Your task to perform on an android device: turn vacation reply on in the gmail app Image 0: 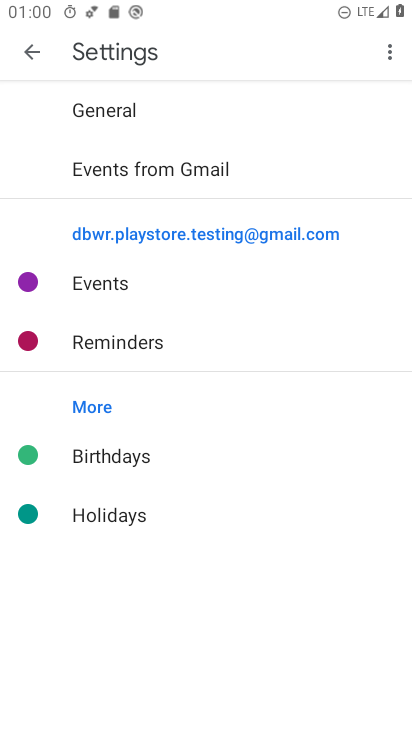
Step 0: press home button
Your task to perform on an android device: turn vacation reply on in the gmail app Image 1: 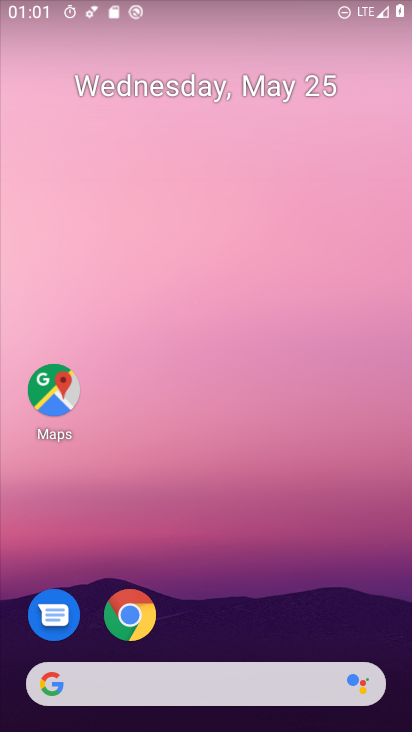
Step 1: drag from (279, 715) to (411, 101)
Your task to perform on an android device: turn vacation reply on in the gmail app Image 2: 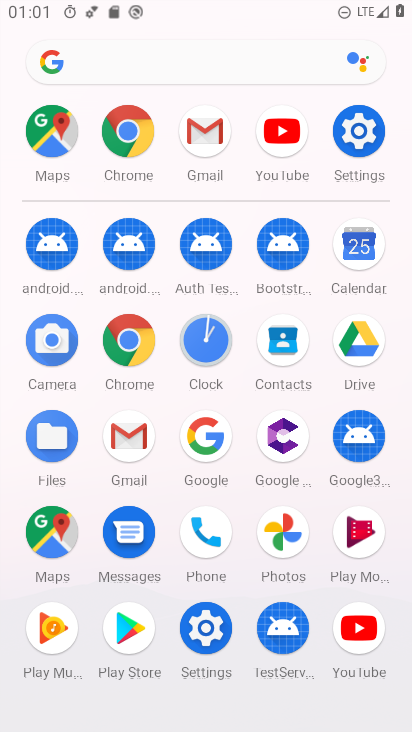
Step 2: click (216, 149)
Your task to perform on an android device: turn vacation reply on in the gmail app Image 3: 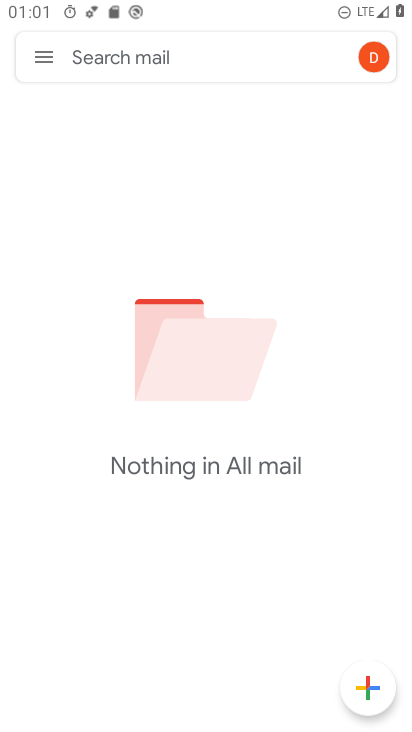
Step 3: click (54, 51)
Your task to perform on an android device: turn vacation reply on in the gmail app Image 4: 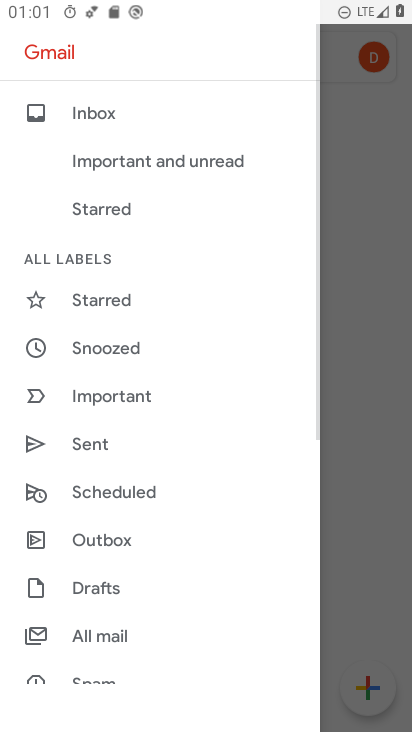
Step 4: drag from (94, 614) to (330, 62)
Your task to perform on an android device: turn vacation reply on in the gmail app Image 5: 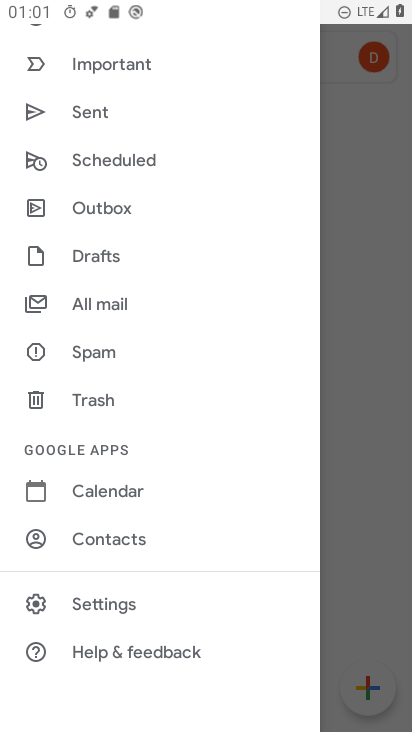
Step 5: click (106, 598)
Your task to perform on an android device: turn vacation reply on in the gmail app Image 6: 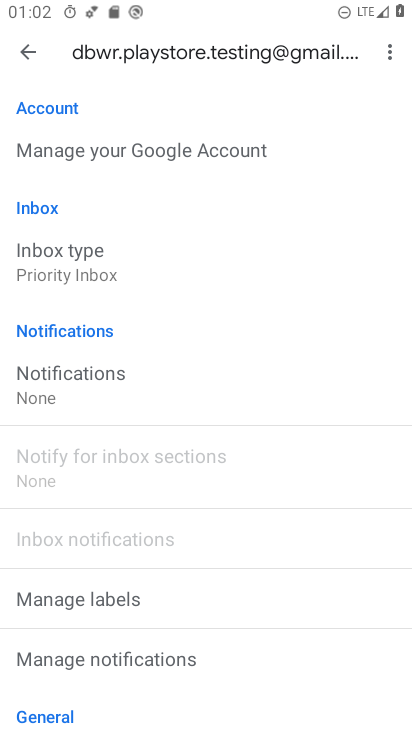
Step 6: drag from (109, 596) to (236, 152)
Your task to perform on an android device: turn vacation reply on in the gmail app Image 7: 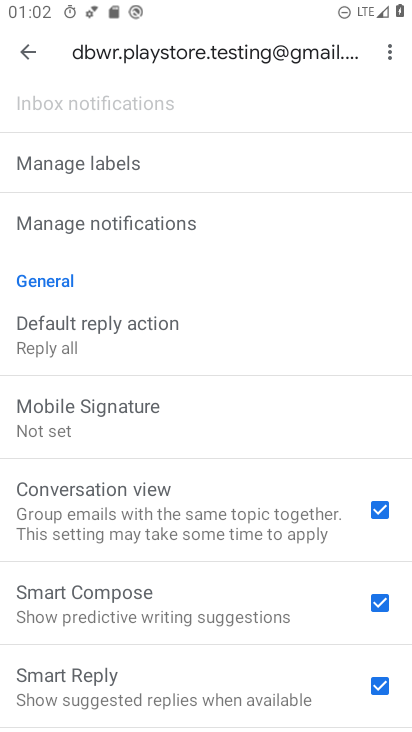
Step 7: drag from (98, 622) to (244, 331)
Your task to perform on an android device: turn vacation reply on in the gmail app Image 8: 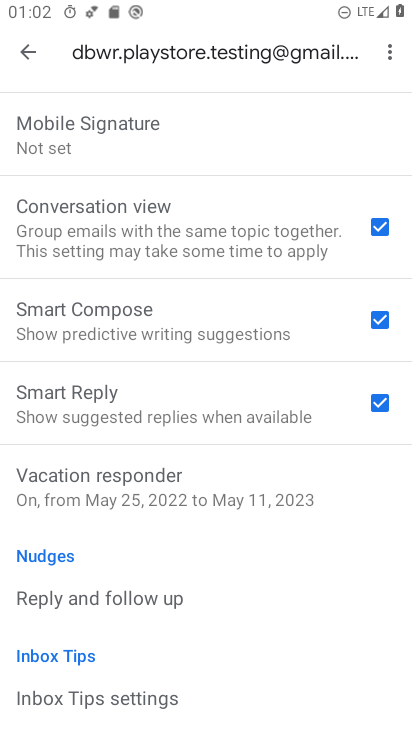
Step 8: click (255, 488)
Your task to perform on an android device: turn vacation reply on in the gmail app Image 9: 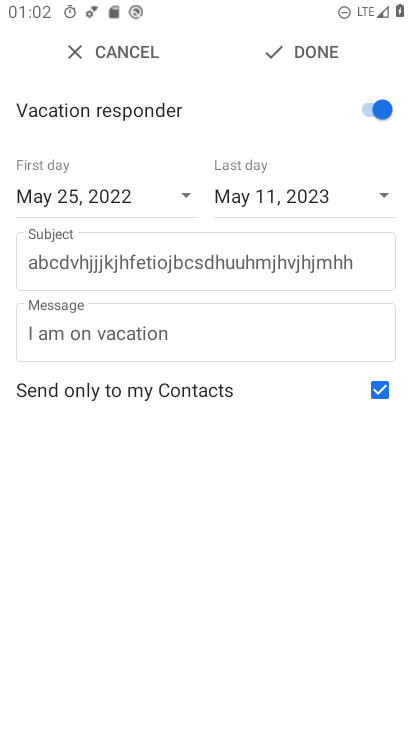
Step 9: task complete